Your task to perform on an android device: add a contact in the contacts app Image 0: 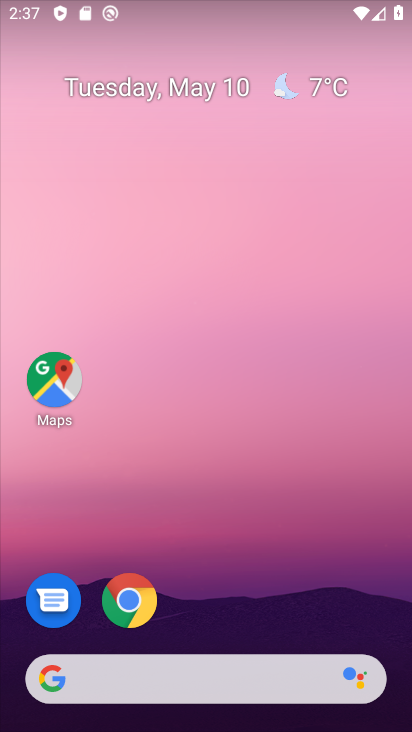
Step 0: drag from (219, 666) to (203, 291)
Your task to perform on an android device: add a contact in the contacts app Image 1: 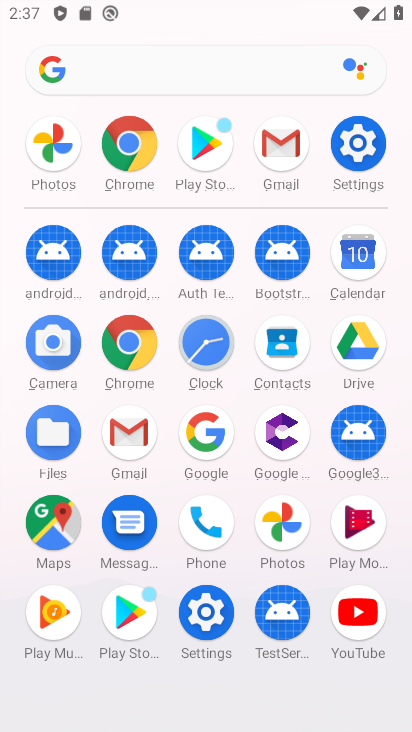
Step 1: click (283, 365)
Your task to perform on an android device: add a contact in the contacts app Image 2: 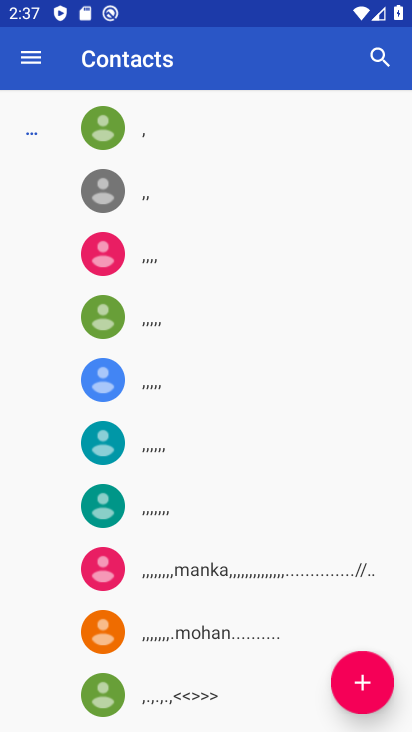
Step 2: click (371, 668)
Your task to perform on an android device: add a contact in the contacts app Image 3: 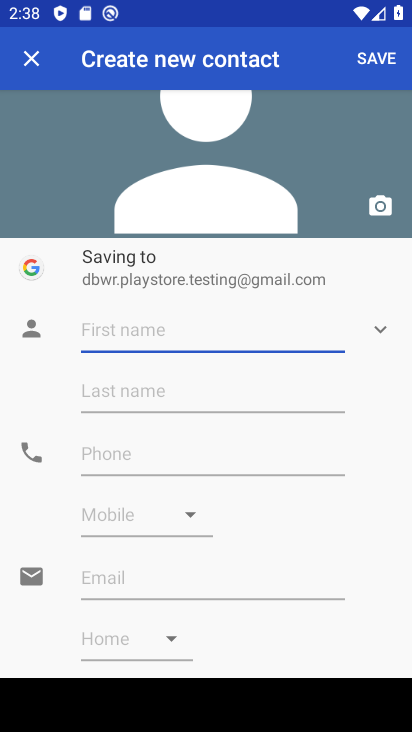
Step 3: type " bkjSvk'"
Your task to perform on an android device: add a contact in the contacts app Image 4: 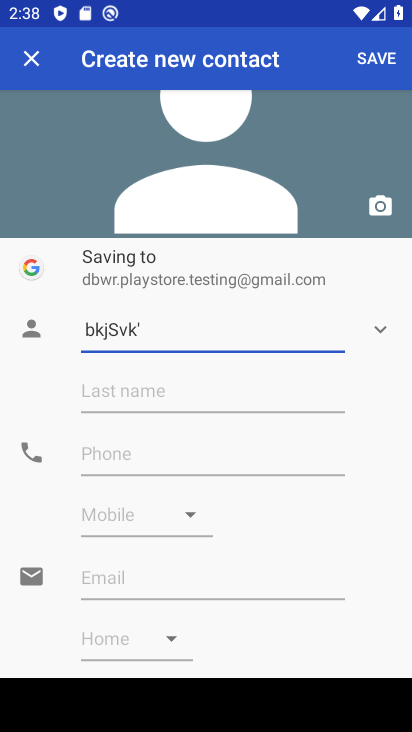
Step 4: click (148, 465)
Your task to perform on an android device: add a contact in the contacts app Image 5: 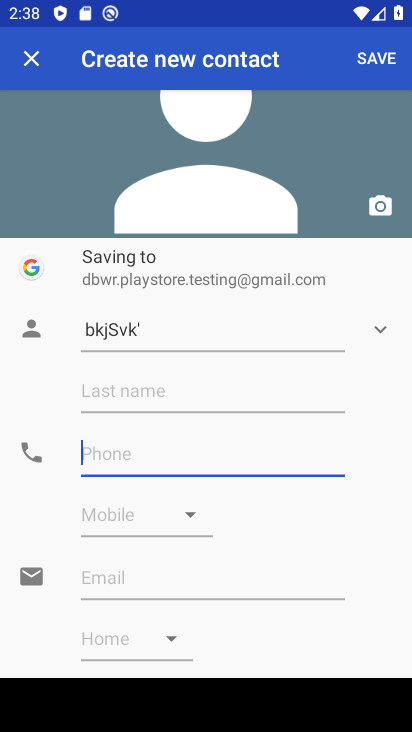
Step 5: type "4586948"
Your task to perform on an android device: add a contact in the contacts app Image 6: 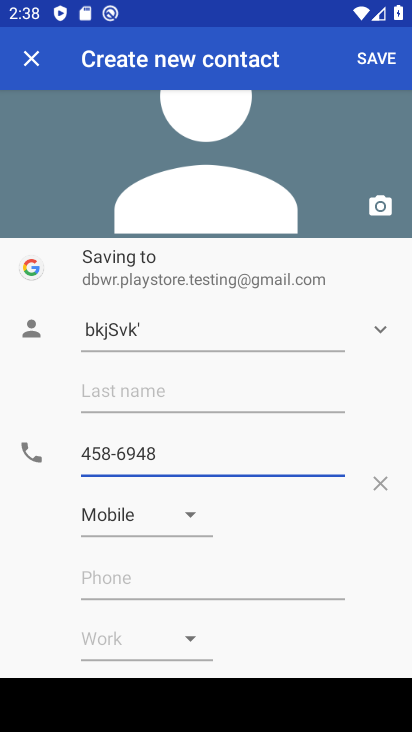
Step 6: task complete